Your task to perform on an android device: See recent photos Image 0: 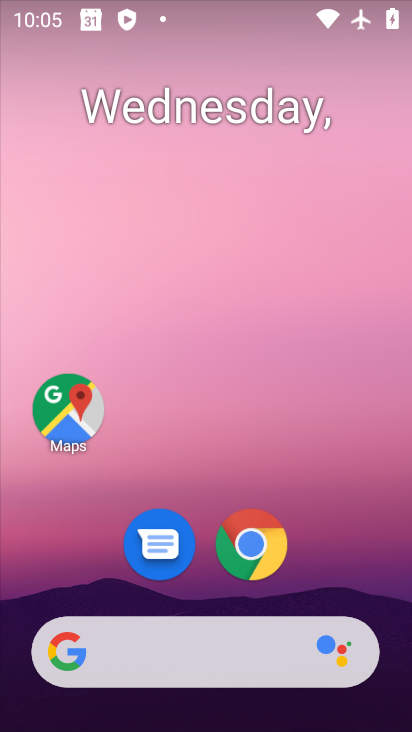
Step 0: drag from (328, 581) to (352, 71)
Your task to perform on an android device: See recent photos Image 1: 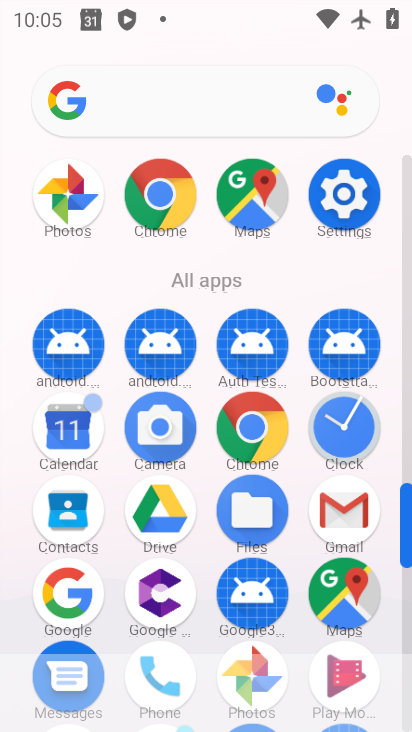
Step 1: drag from (286, 637) to (297, 200)
Your task to perform on an android device: See recent photos Image 2: 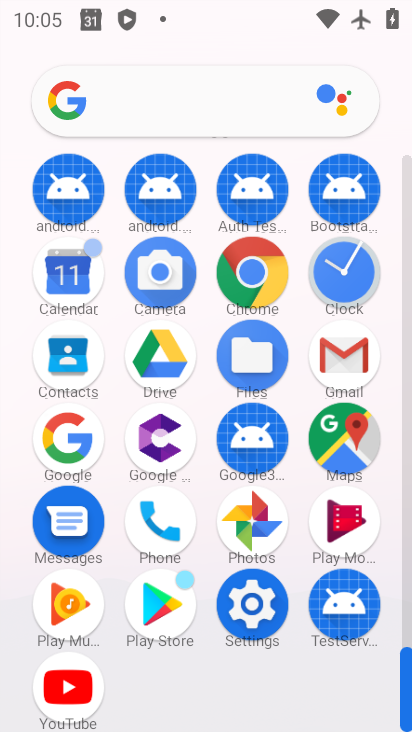
Step 2: click (267, 507)
Your task to perform on an android device: See recent photos Image 3: 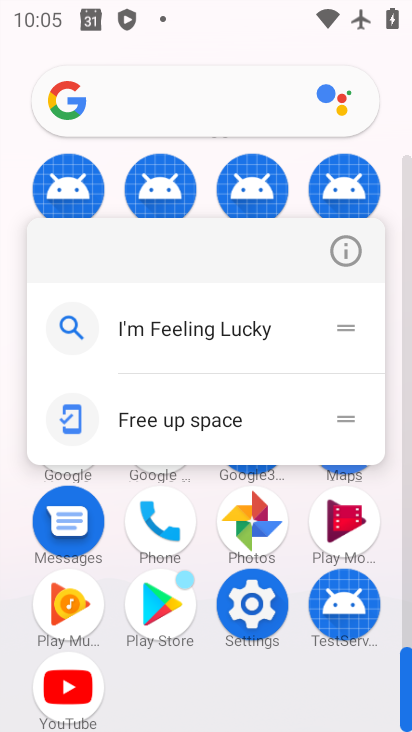
Step 3: click (236, 531)
Your task to perform on an android device: See recent photos Image 4: 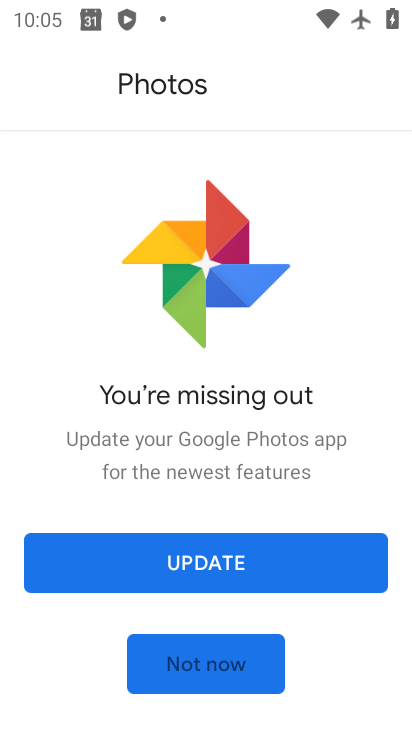
Step 4: click (192, 569)
Your task to perform on an android device: See recent photos Image 5: 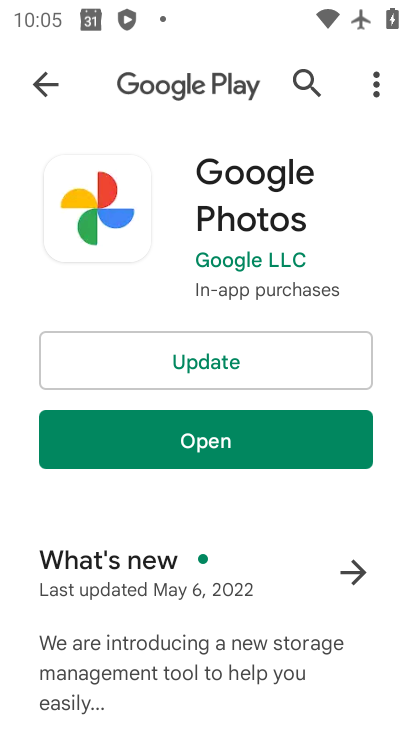
Step 5: click (284, 349)
Your task to perform on an android device: See recent photos Image 6: 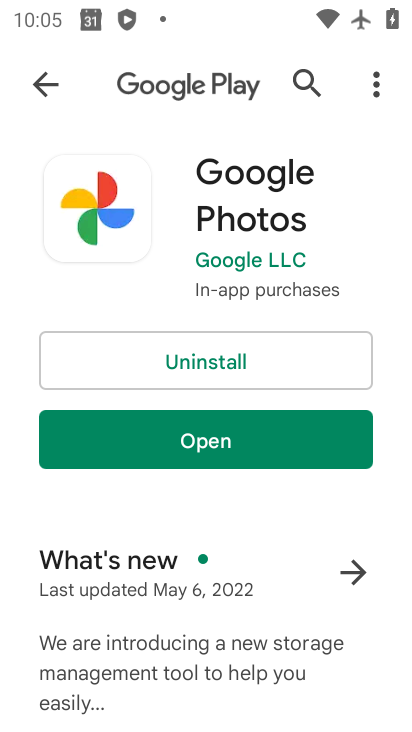
Step 6: click (131, 431)
Your task to perform on an android device: See recent photos Image 7: 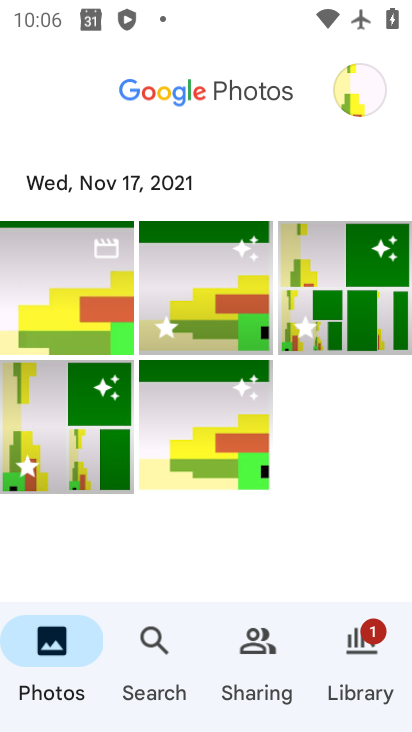
Step 7: task complete